Your task to perform on an android device: What's on my calendar tomorrow? Image 0: 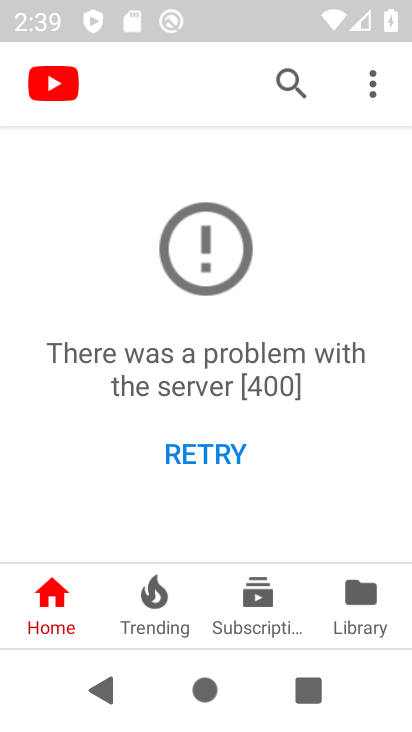
Step 0: press home button
Your task to perform on an android device: What's on my calendar tomorrow? Image 1: 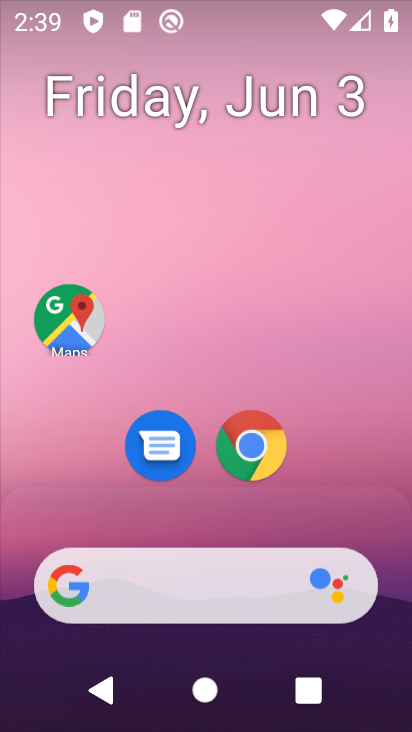
Step 1: drag from (178, 561) to (272, 80)
Your task to perform on an android device: What's on my calendar tomorrow? Image 2: 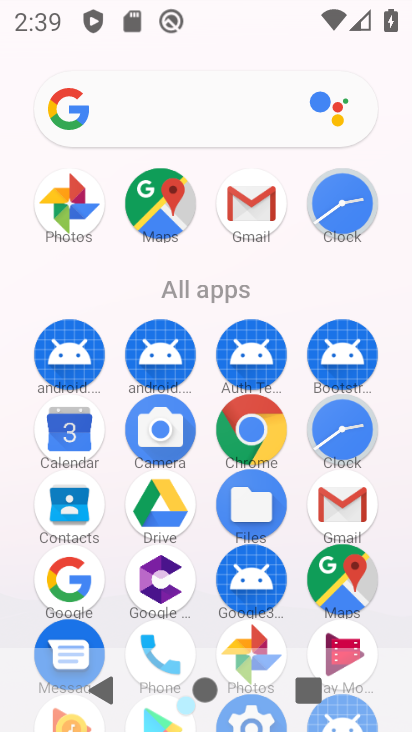
Step 2: click (66, 438)
Your task to perform on an android device: What's on my calendar tomorrow? Image 3: 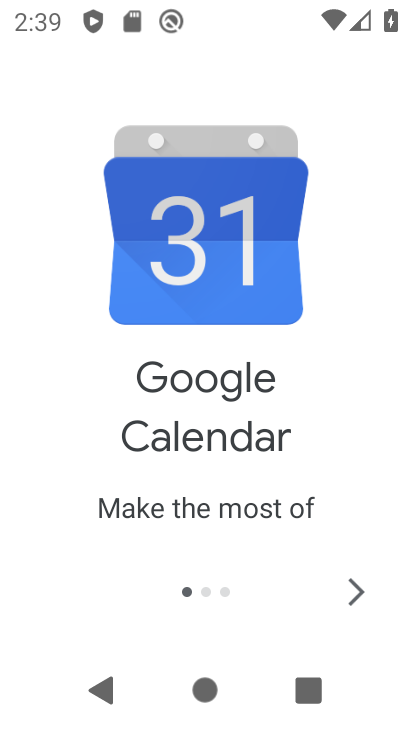
Step 3: click (379, 621)
Your task to perform on an android device: What's on my calendar tomorrow? Image 4: 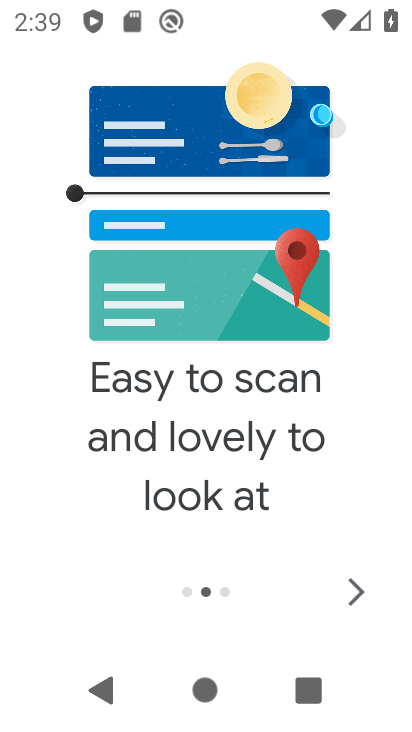
Step 4: click (379, 621)
Your task to perform on an android device: What's on my calendar tomorrow? Image 5: 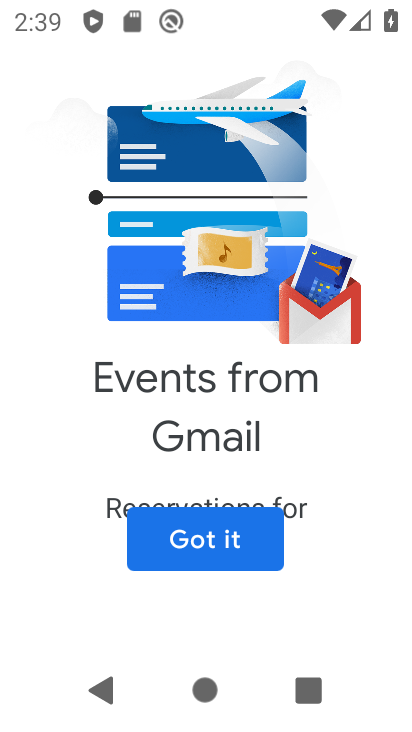
Step 5: click (218, 560)
Your task to perform on an android device: What's on my calendar tomorrow? Image 6: 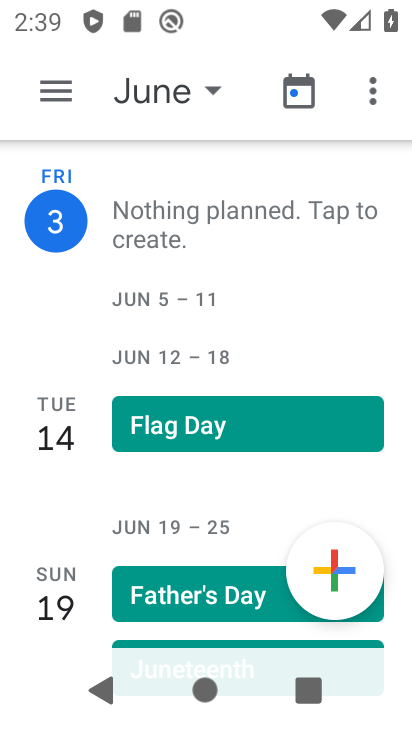
Step 6: click (55, 107)
Your task to perform on an android device: What's on my calendar tomorrow? Image 7: 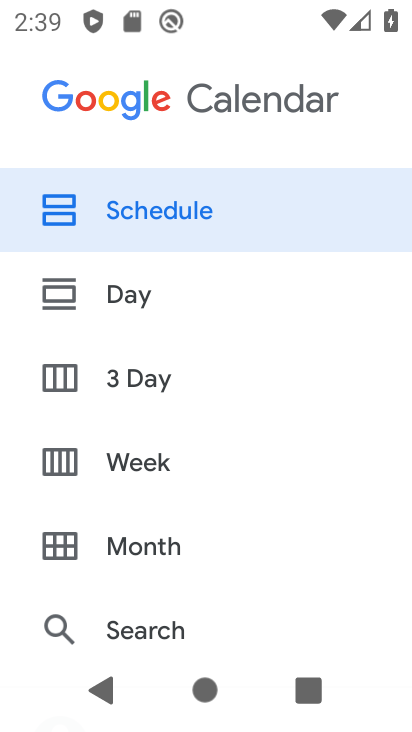
Step 7: click (132, 488)
Your task to perform on an android device: What's on my calendar tomorrow? Image 8: 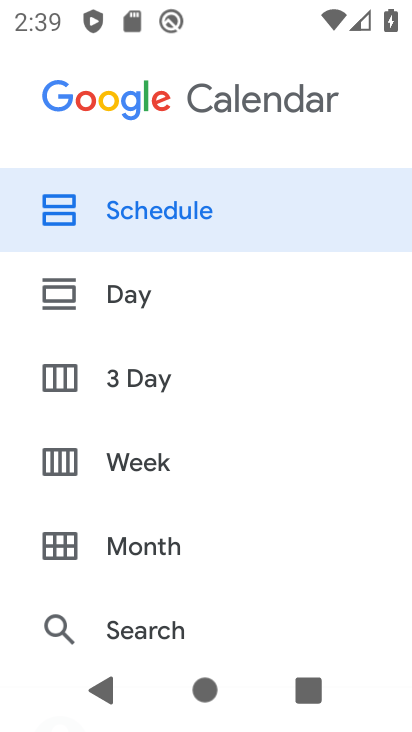
Step 8: click (146, 466)
Your task to perform on an android device: What's on my calendar tomorrow? Image 9: 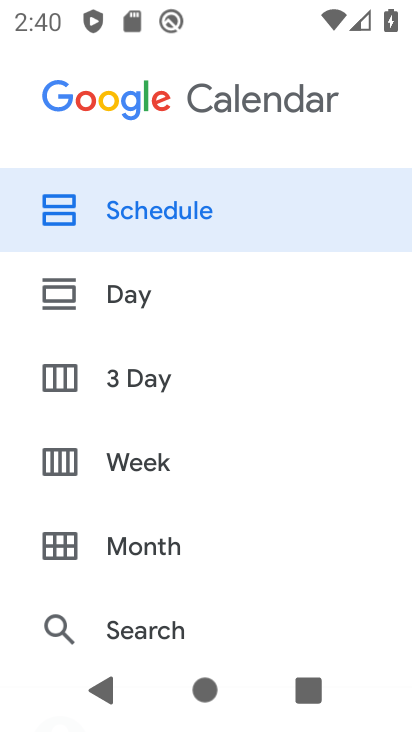
Step 9: click (161, 297)
Your task to perform on an android device: What's on my calendar tomorrow? Image 10: 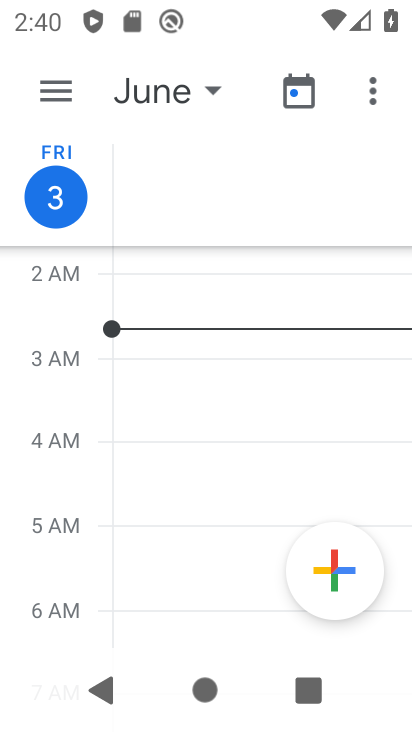
Step 10: click (159, 99)
Your task to perform on an android device: What's on my calendar tomorrow? Image 11: 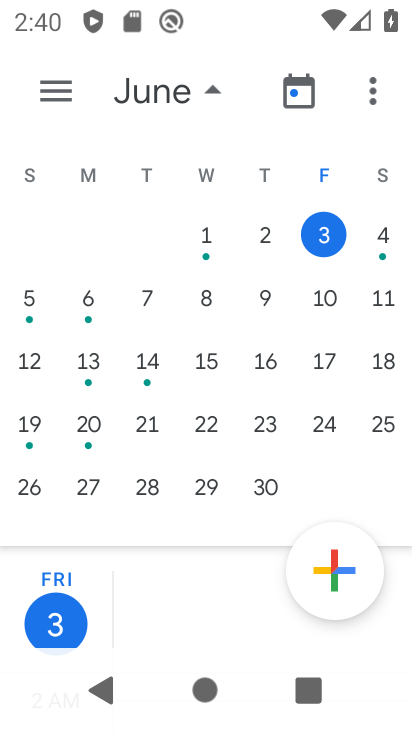
Step 11: click (384, 245)
Your task to perform on an android device: What's on my calendar tomorrow? Image 12: 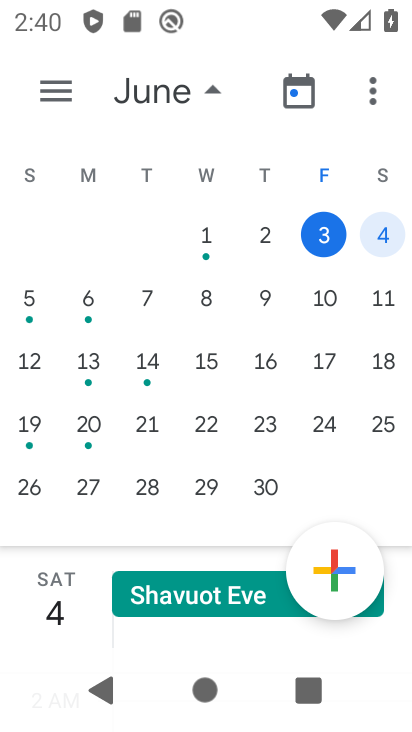
Step 12: click (380, 234)
Your task to perform on an android device: What's on my calendar tomorrow? Image 13: 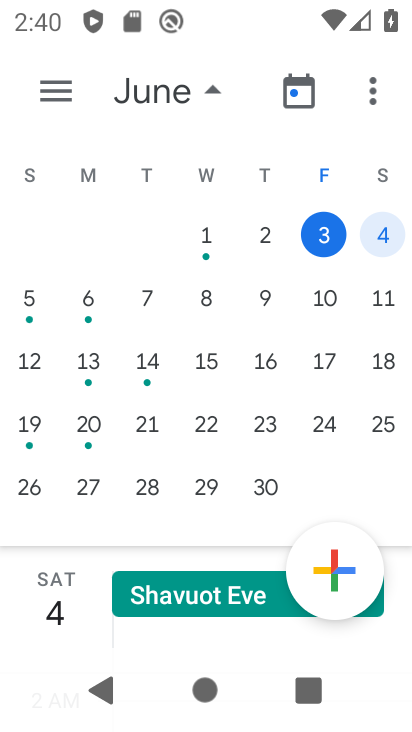
Step 13: click (380, 234)
Your task to perform on an android device: What's on my calendar tomorrow? Image 14: 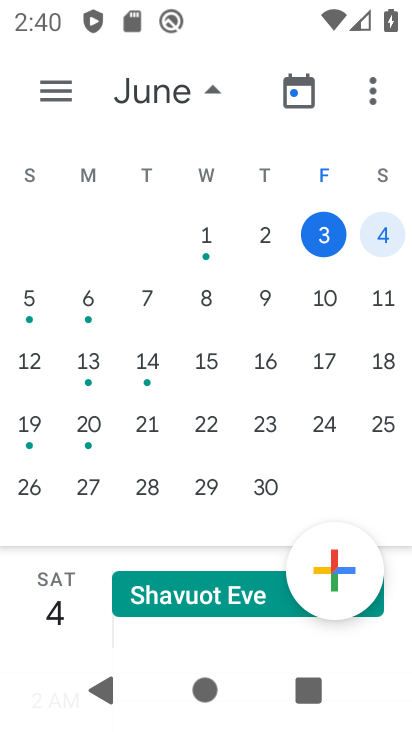
Step 14: click (204, 87)
Your task to perform on an android device: What's on my calendar tomorrow? Image 15: 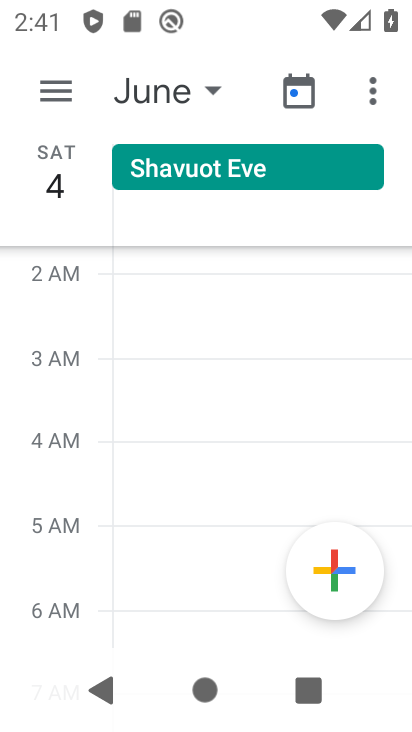
Step 15: task complete